Your task to perform on an android device: turn on bluetooth scan Image 0: 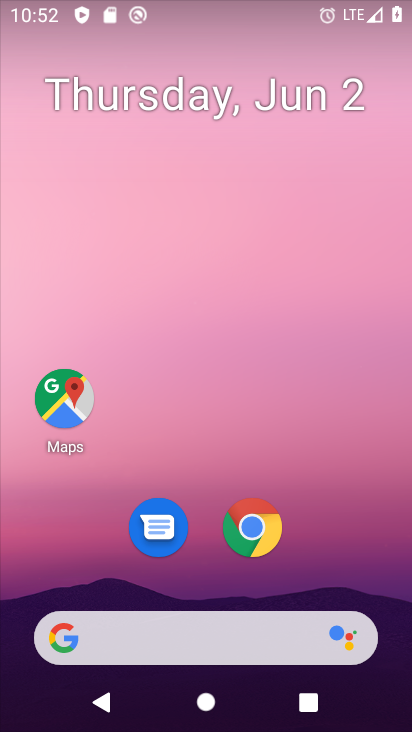
Step 0: drag from (232, 623) to (219, 26)
Your task to perform on an android device: turn on bluetooth scan Image 1: 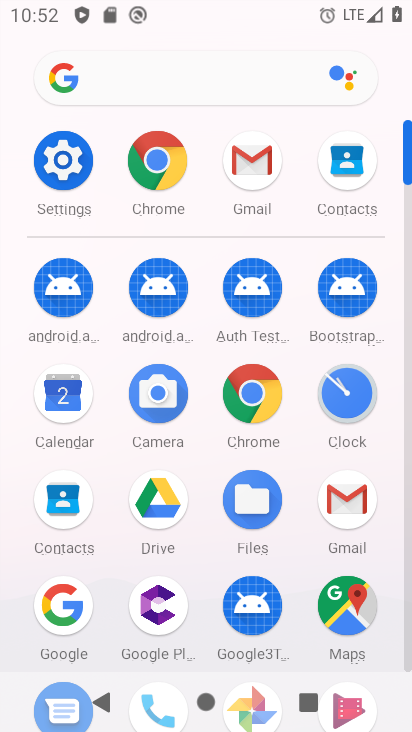
Step 1: click (58, 164)
Your task to perform on an android device: turn on bluetooth scan Image 2: 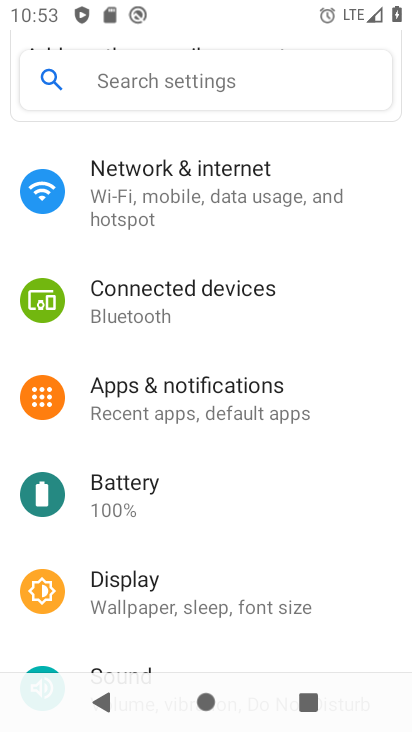
Step 2: drag from (191, 488) to (119, 36)
Your task to perform on an android device: turn on bluetooth scan Image 3: 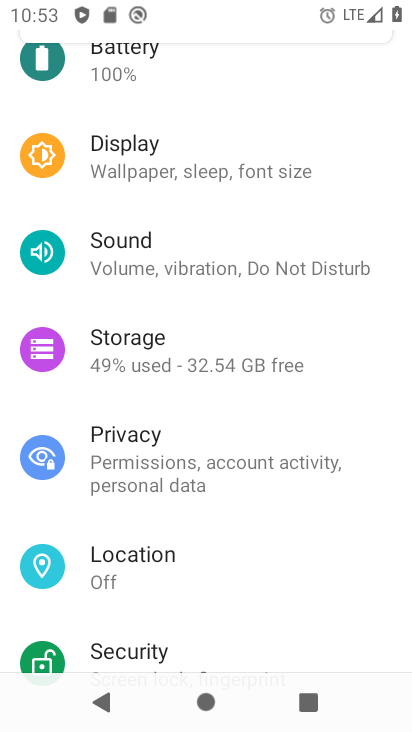
Step 3: click (142, 563)
Your task to perform on an android device: turn on bluetooth scan Image 4: 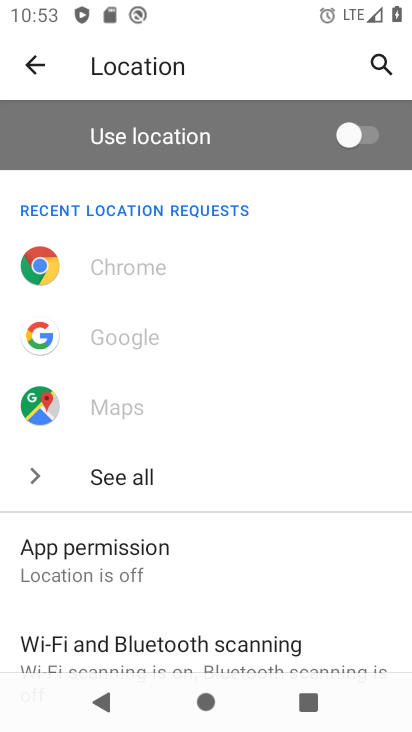
Step 4: click (96, 647)
Your task to perform on an android device: turn on bluetooth scan Image 5: 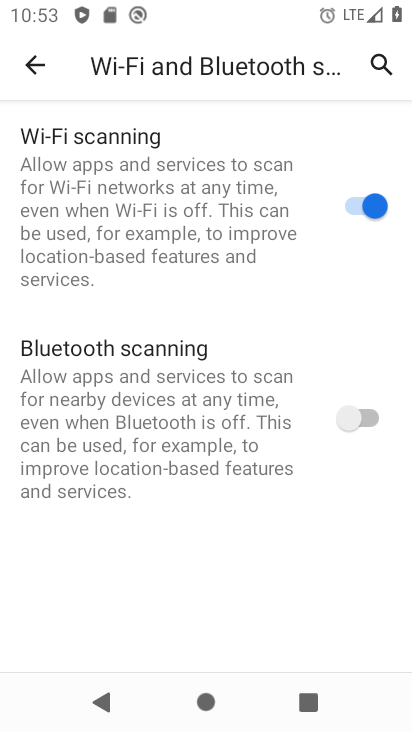
Step 5: click (364, 427)
Your task to perform on an android device: turn on bluetooth scan Image 6: 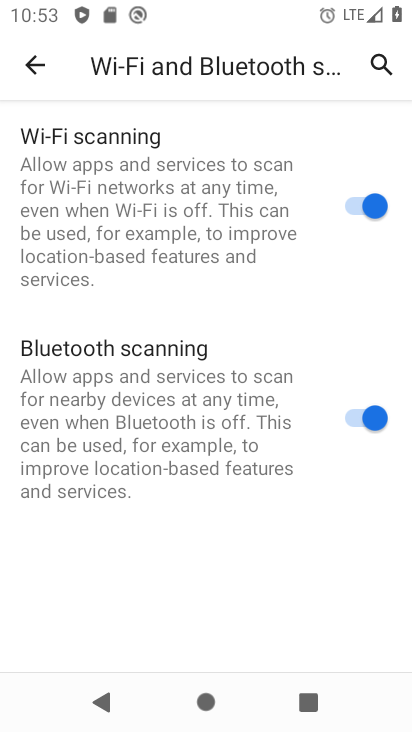
Step 6: task complete